Your task to perform on an android device: Open battery settings Image 0: 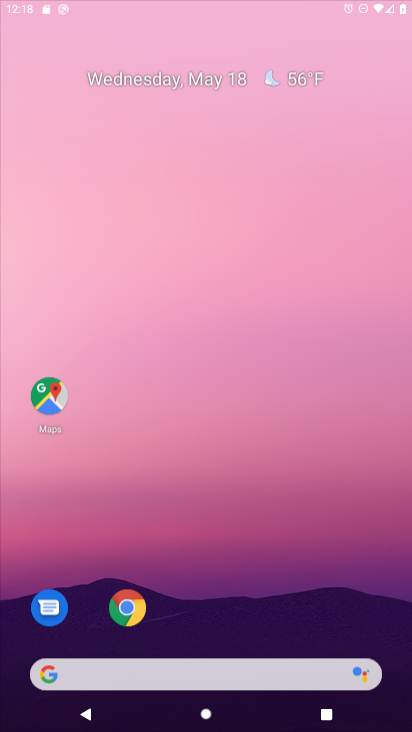
Step 0: press home button
Your task to perform on an android device: Open battery settings Image 1: 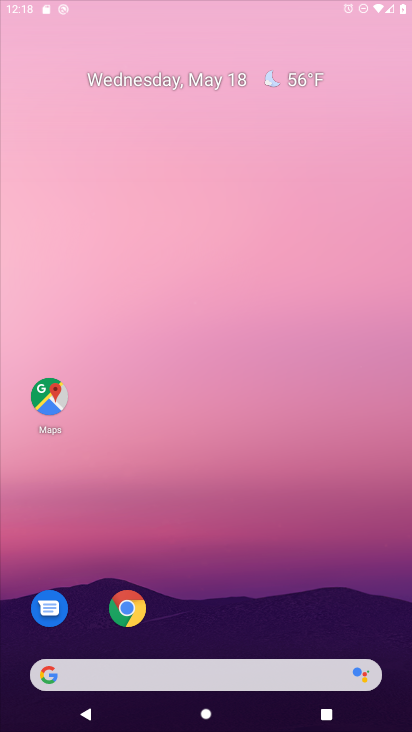
Step 1: drag from (221, 668) to (255, 98)
Your task to perform on an android device: Open battery settings Image 2: 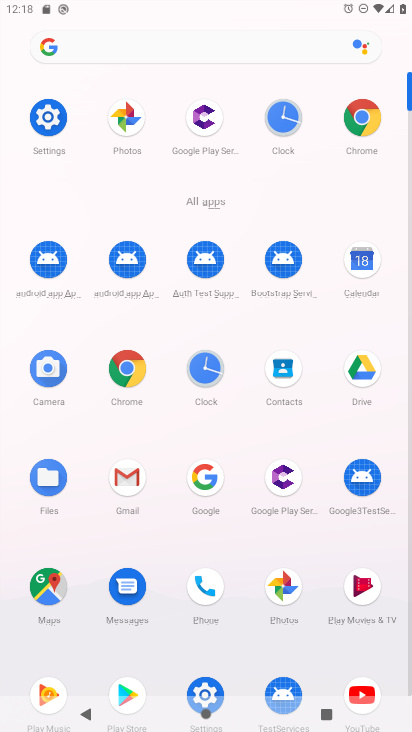
Step 2: click (65, 135)
Your task to perform on an android device: Open battery settings Image 3: 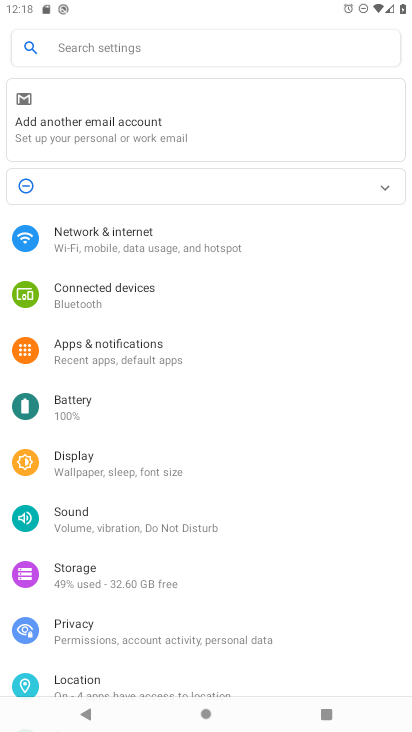
Step 3: click (114, 415)
Your task to perform on an android device: Open battery settings Image 4: 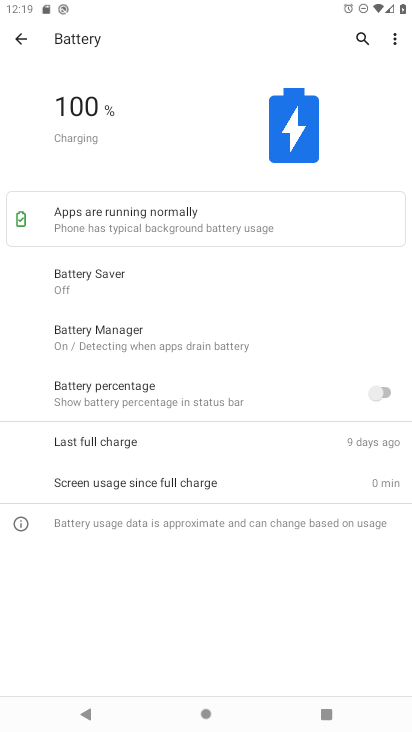
Step 4: task complete